Your task to perform on an android device: set the stopwatch Image 0: 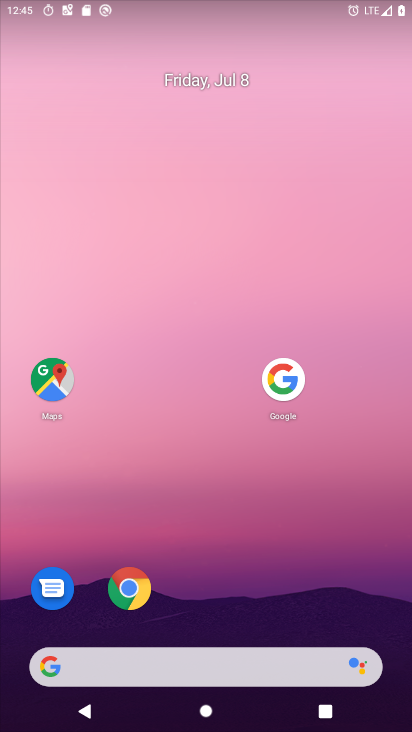
Step 0: drag from (161, 661) to (307, 3)
Your task to perform on an android device: set the stopwatch Image 1: 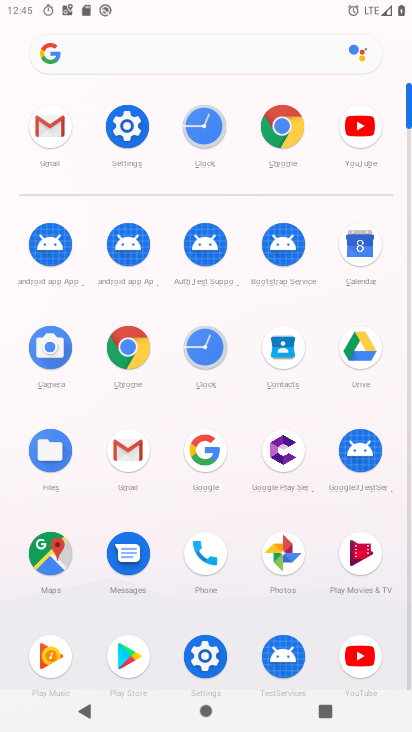
Step 1: click (201, 123)
Your task to perform on an android device: set the stopwatch Image 2: 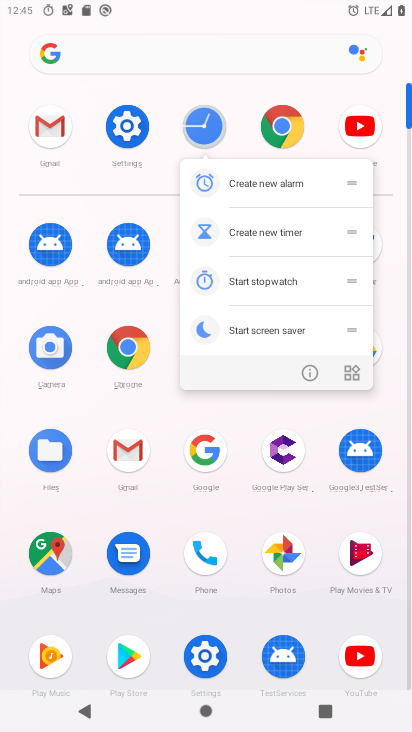
Step 2: click (200, 124)
Your task to perform on an android device: set the stopwatch Image 3: 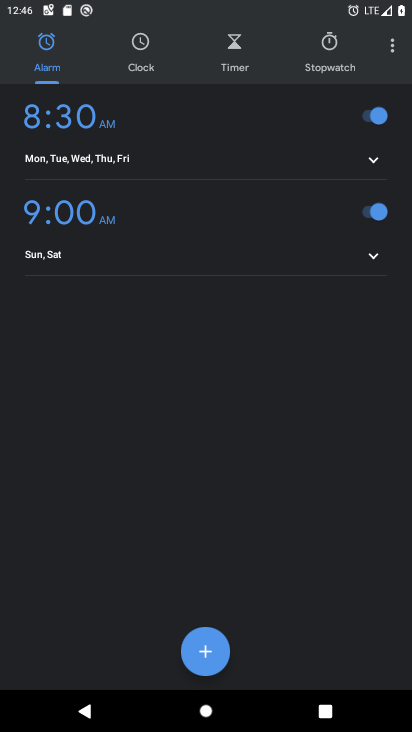
Step 3: click (324, 47)
Your task to perform on an android device: set the stopwatch Image 4: 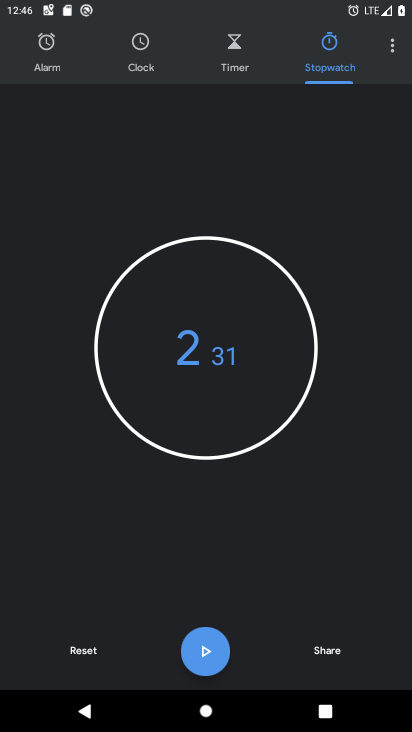
Step 4: click (91, 642)
Your task to perform on an android device: set the stopwatch Image 5: 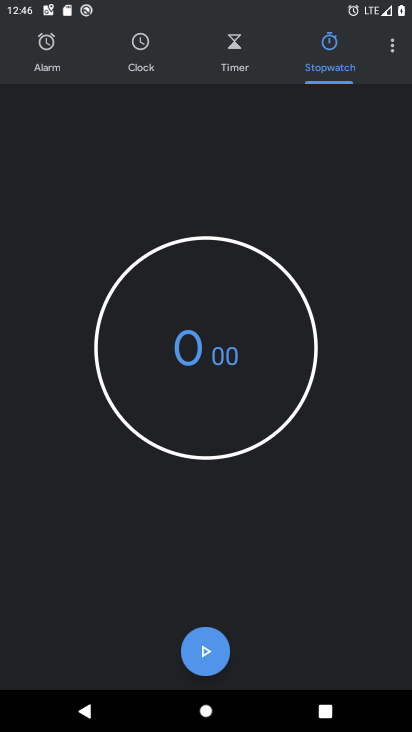
Step 5: click (202, 360)
Your task to perform on an android device: set the stopwatch Image 6: 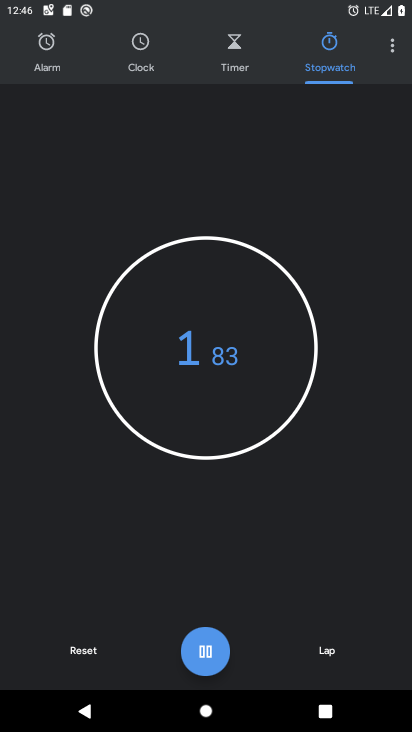
Step 6: click (210, 354)
Your task to perform on an android device: set the stopwatch Image 7: 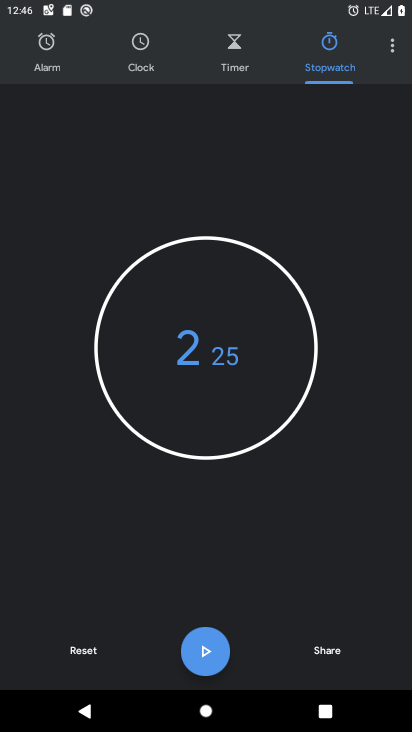
Step 7: task complete